Your task to perform on an android device: Open eBay Image 0: 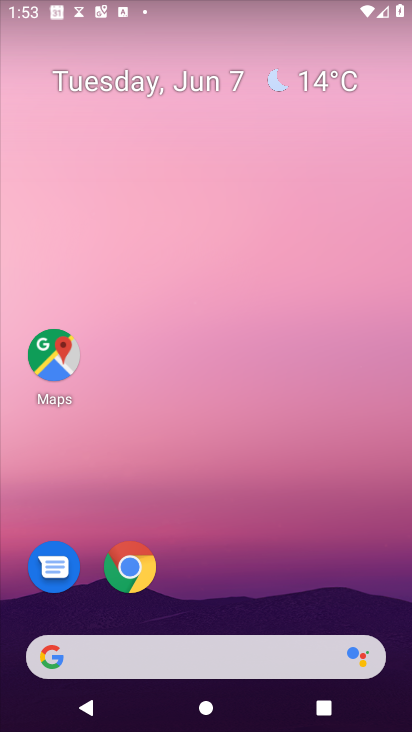
Step 0: drag from (120, 626) to (202, 42)
Your task to perform on an android device: Open eBay Image 1: 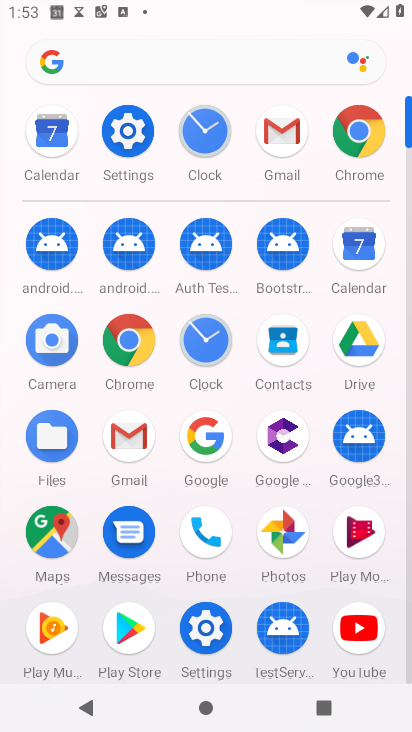
Step 1: click (130, 336)
Your task to perform on an android device: Open eBay Image 2: 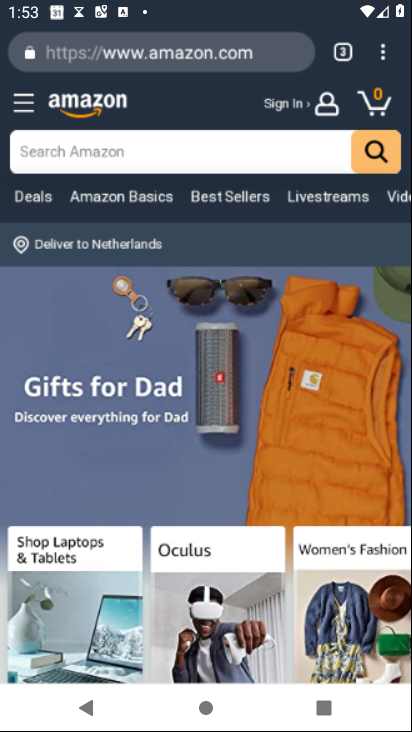
Step 2: click (200, 48)
Your task to perform on an android device: Open eBay Image 3: 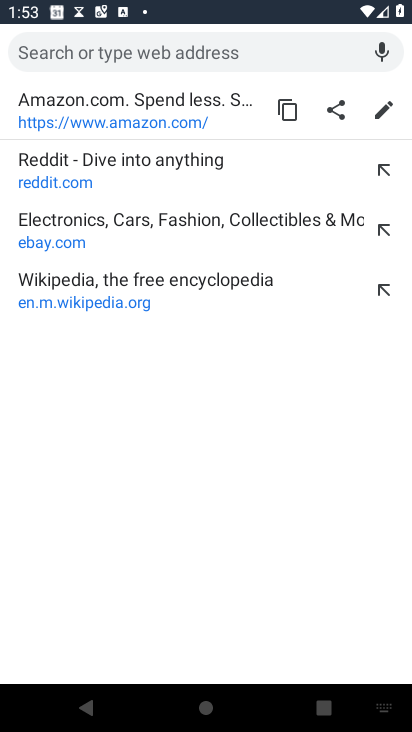
Step 3: click (224, 220)
Your task to perform on an android device: Open eBay Image 4: 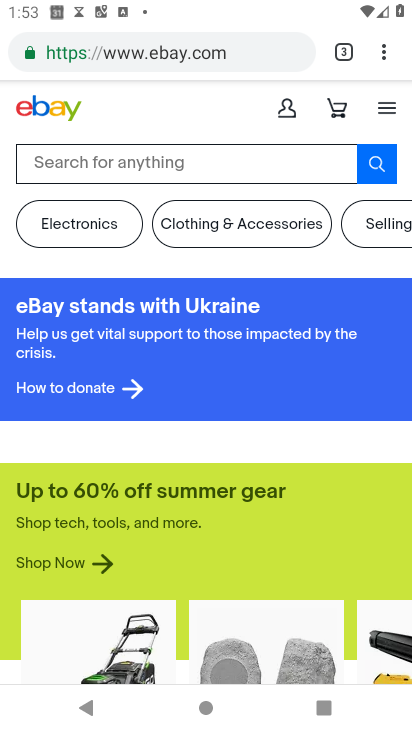
Step 4: task complete